Your task to perform on an android device: install app "LinkedIn" Image 0: 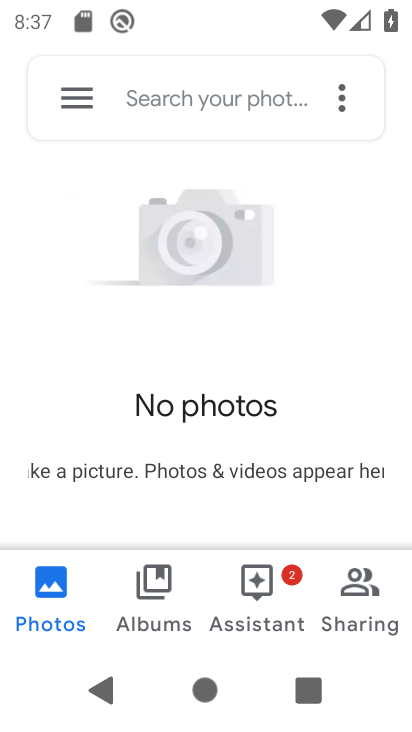
Step 0: press home button
Your task to perform on an android device: install app "LinkedIn" Image 1: 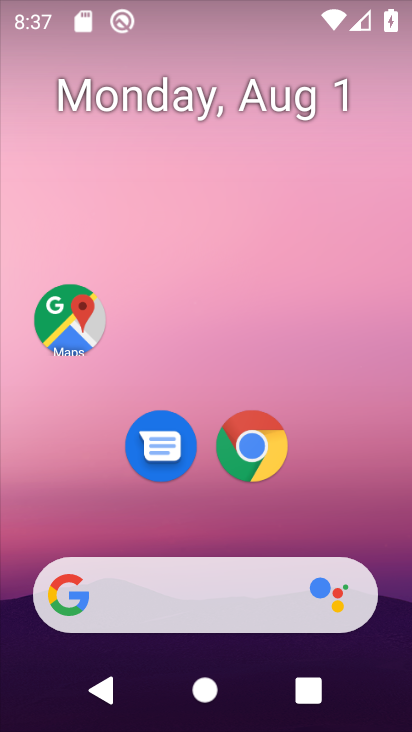
Step 1: drag from (194, 526) to (136, 186)
Your task to perform on an android device: install app "LinkedIn" Image 2: 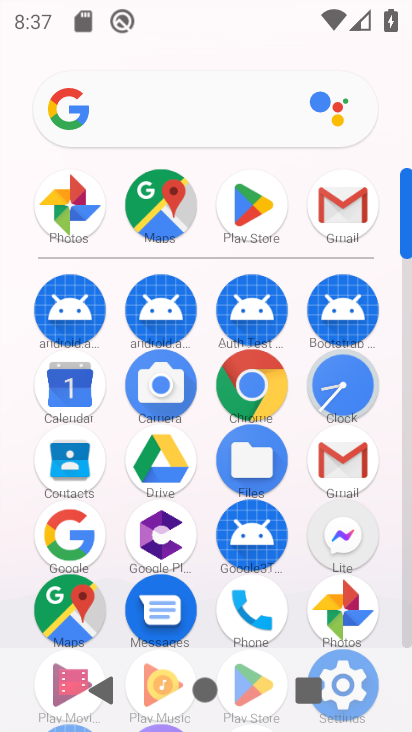
Step 2: click (263, 220)
Your task to perform on an android device: install app "LinkedIn" Image 3: 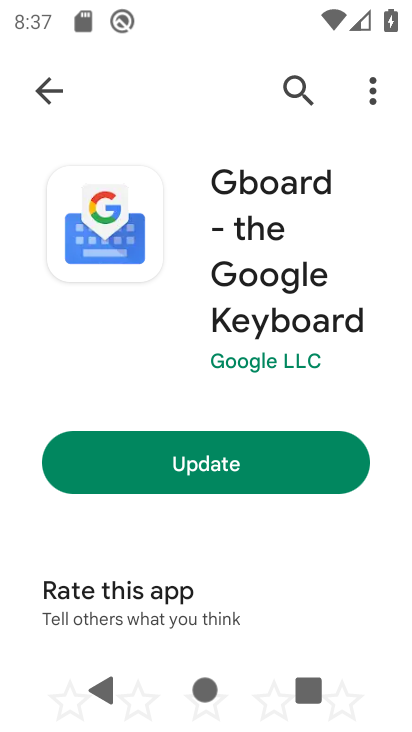
Step 3: click (276, 80)
Your task to perform on an android device: install app "LinkedIn" Image 4: 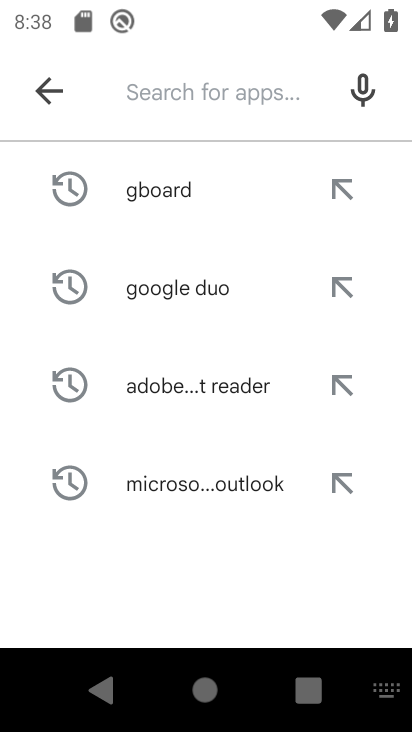
Step 4: type "LinkedIn"
Your task to perform on an android device: install app "LinkedIn" Image 5: 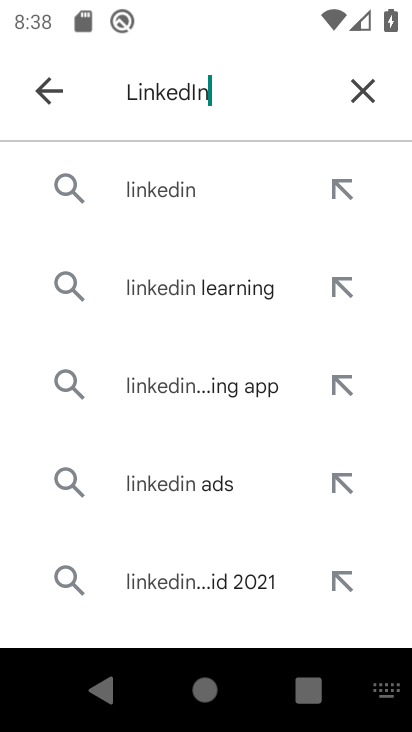
Step 5: click (236, 191)
Your task to perform on an android device: install app "LinkedIn" Image 6: 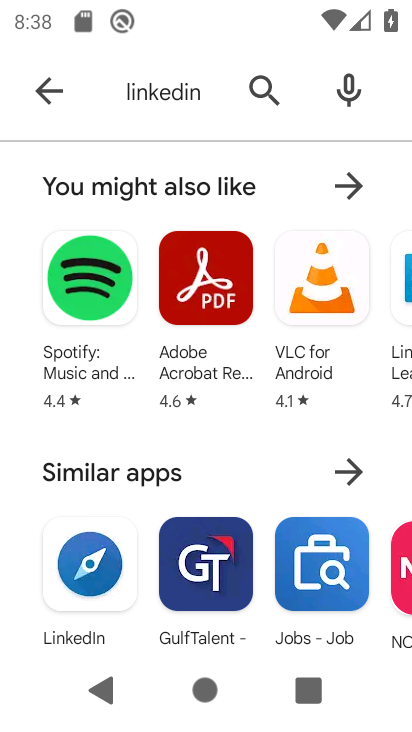
Step 6: drag from (234, 453) to (242, 152)
Your task to perform on an android device: install app "LinkedIn" Image 7: 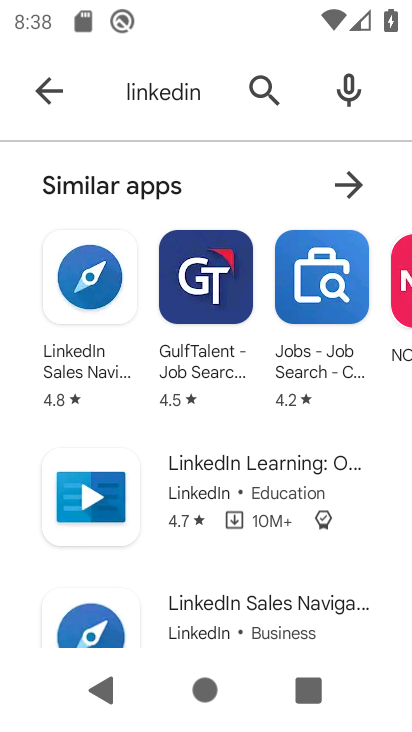
Step 7: click (248, 490)
Your task to perform on an android device: install app "LinkedIn" Image 8: 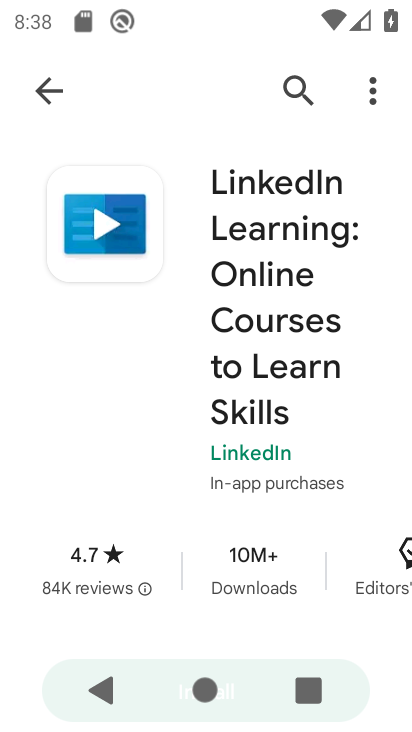
Step 8: drag from (271, 522) to (282, 139)
Your task to perform on an android device: install app "LinkedIn" Image 9: 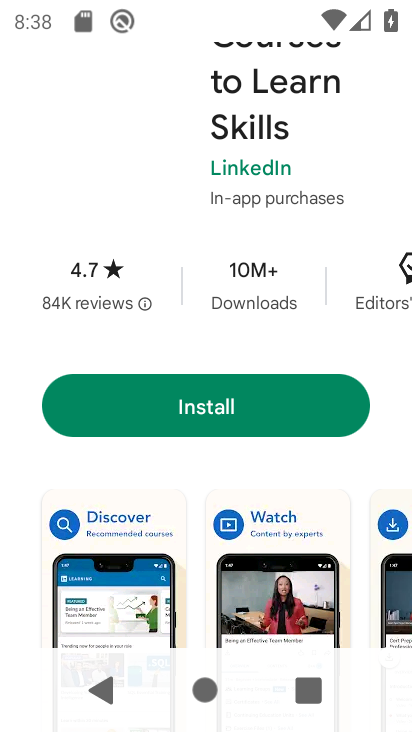
Step 9: click (273, 403)
Your task to perform on an android device: install app "LinkedIn" Image 10: 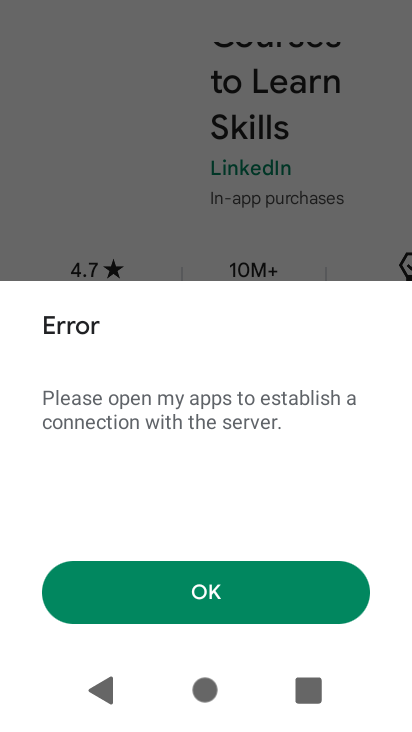
Step 10: click (262, 590)
Your task to perform on an android device: install app "LinkedIn" Image 11: 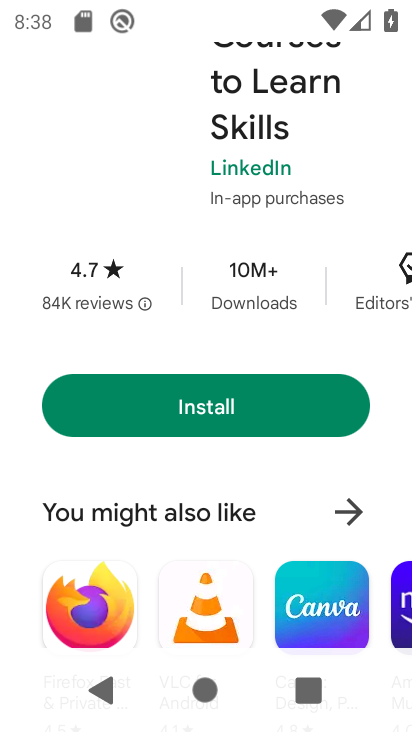
Step 11: task complete